Your task to perform on an android device: Go to notification settings Image 0: 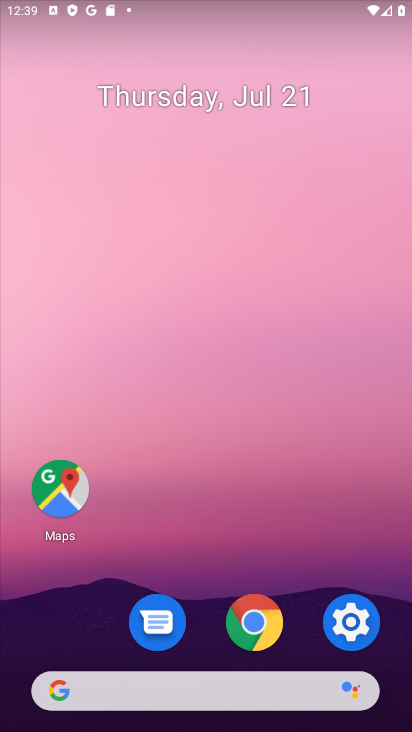
Step 0: click (352, 624)
Your task to perform on an android device: Go to notification settings Image 1: 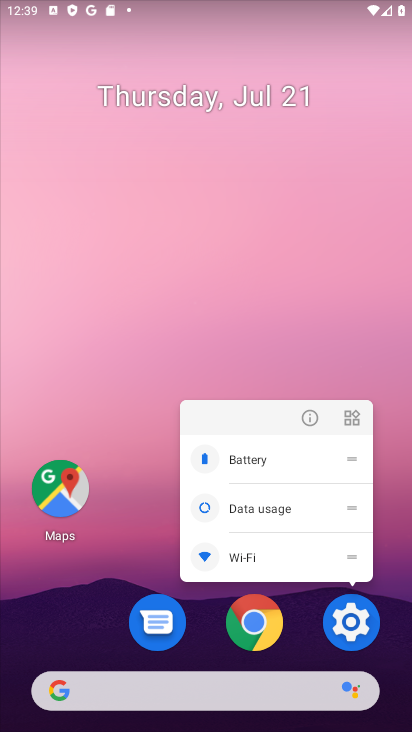
Step 1: click (345, 630)
Your task to perform on an android device: Go to notification settings Image 2: 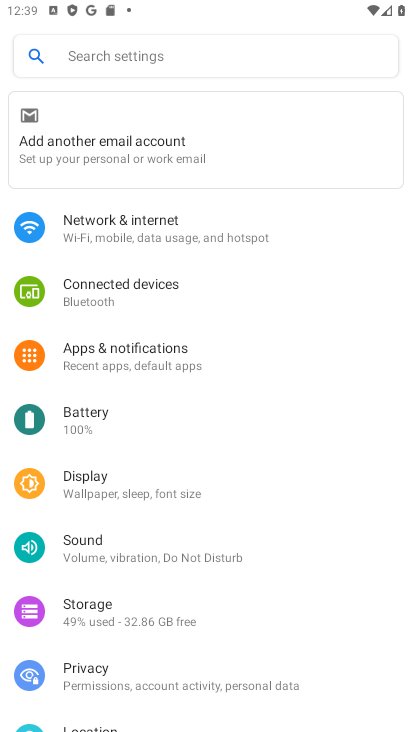
Step 2: click (118, 55)
Your task to perform on an android device: Go to notification settings Image 3: 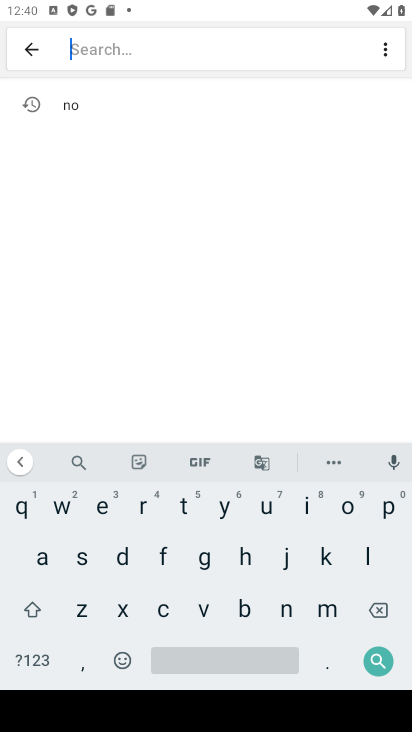
Step 3: click (91, 111)
Your task to perform on an android device: Go to notification settings Image 4: 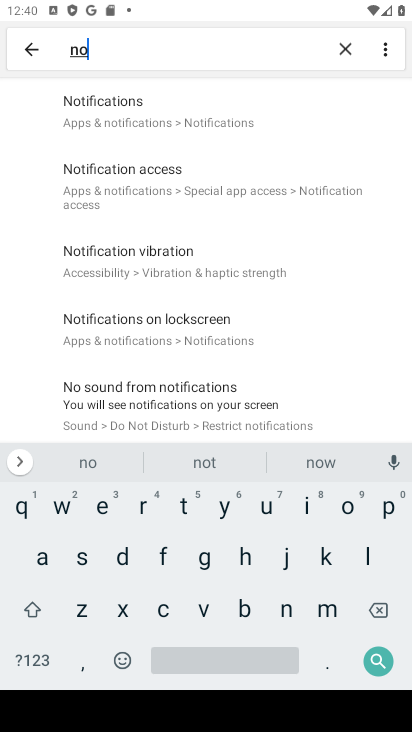
Step 4: click (113, 109)
Your task to perform on an android device: Go to notification settings Image 5: 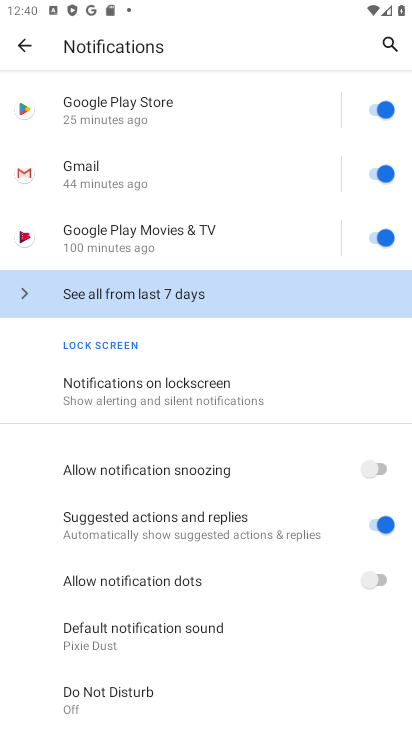
Step 5: click (132, 386)
Your task to perform on an android device: Go to notification settings Image 6: 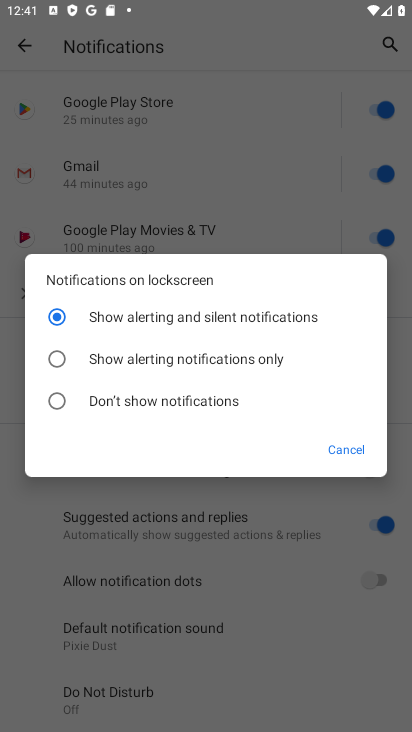
Step 6: task complete